Your task to perform on an android device: Go to accessibility settings Image 0: 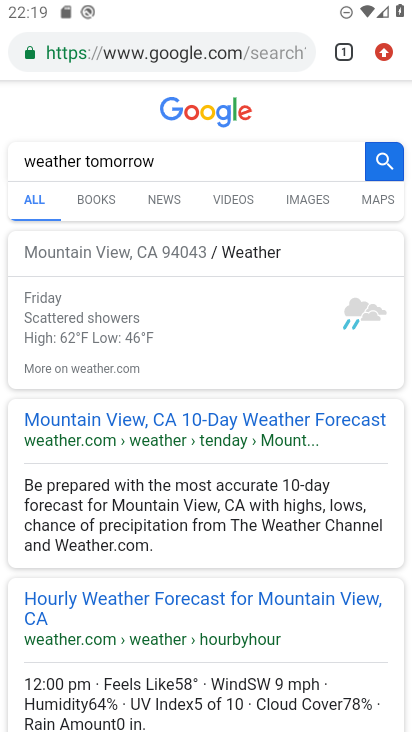
Step 0: press home button
Your task to perform on an android device: Go to accessibility settings Image 1: 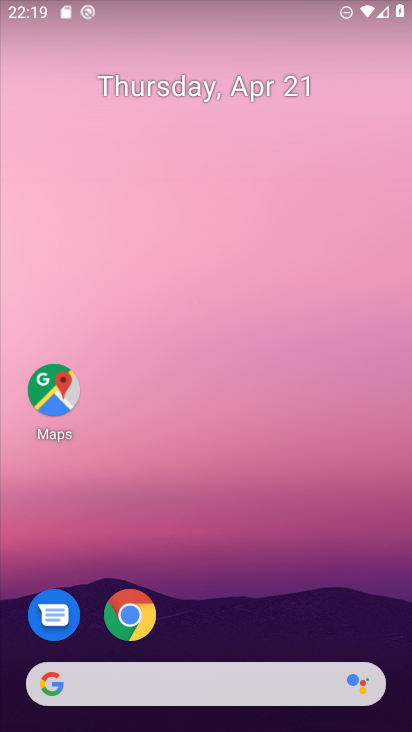
Step 1: drag from (200, 632) to (226, 13)
Your task to perform on an android device: Go to accessibility settings Image 2: 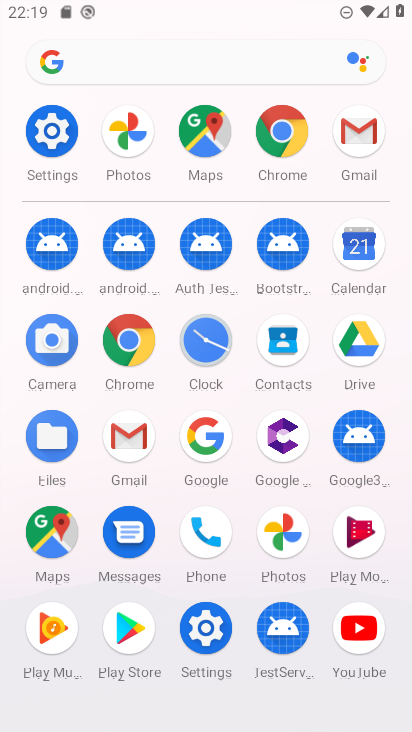
Step 2: click (51, 125)
Your task to perform on an android device: Go to accessibility settings Image 3: 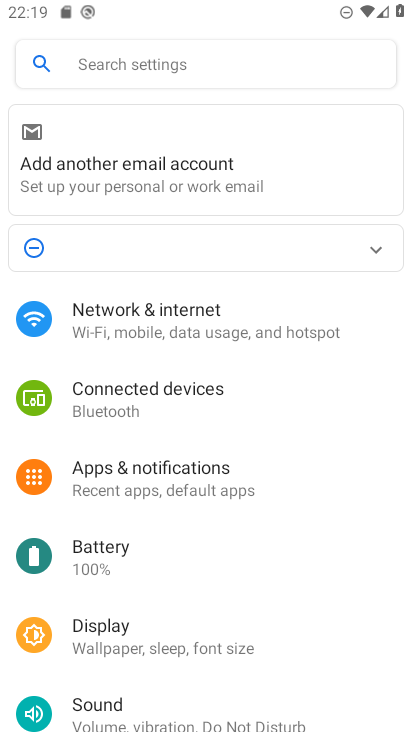
Step 3: drag from (204, 639) to (267, 111)
Your task to perform on an android device: Go to accessibility settings Image 4: 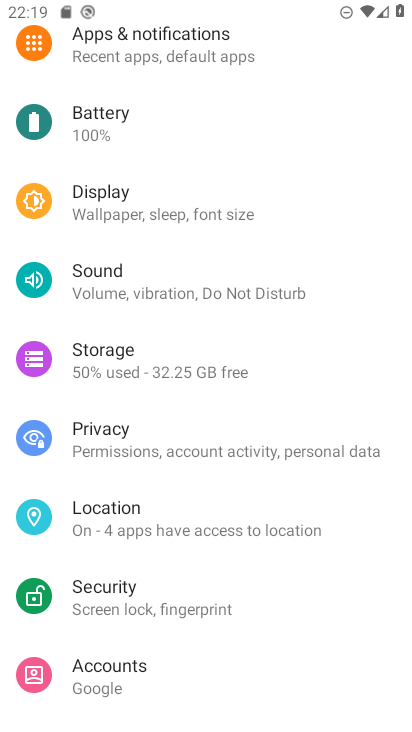
Step 4: drag from (198, 598) to (260, 119)
Your task to perform on an android device: Go to accessibility settings Image 5: 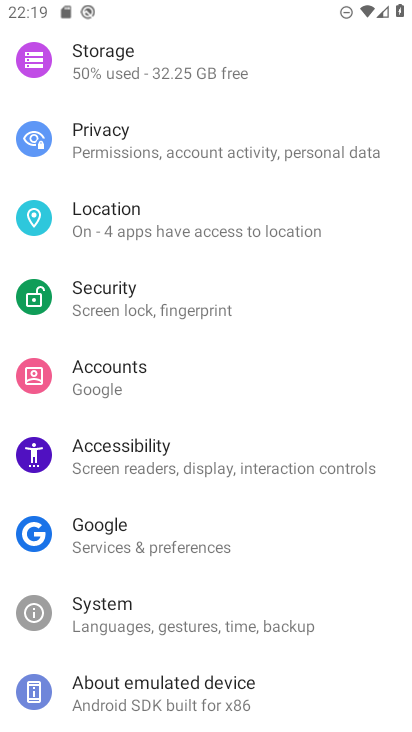
Step 5: click (175, 458)
Your task to perform on an android device: Go to accessibility settings Image 6: 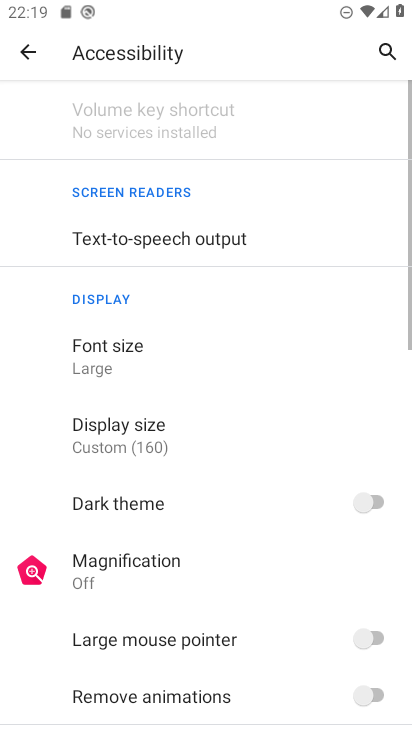
Step 6: task complete